Your task to perform on an android device: What's the weather today? Image 0: 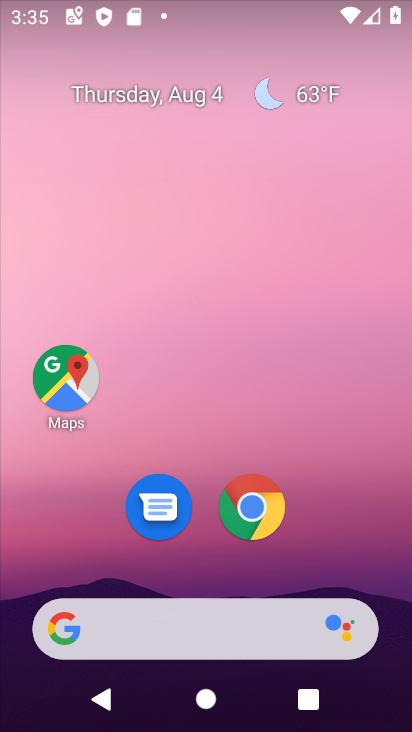
Step 0: click (266, 504)
Your task to perform on an android device: What's the weather today? Image 1: 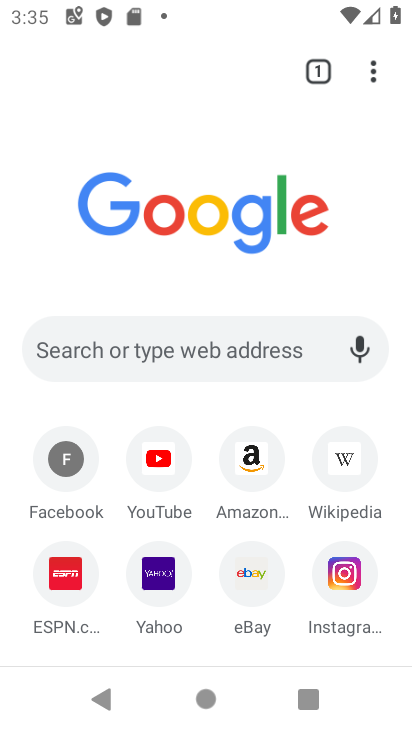
Step 1: click (138, 344)
Your task to perform on an android device: What's the weather today? Image 2: 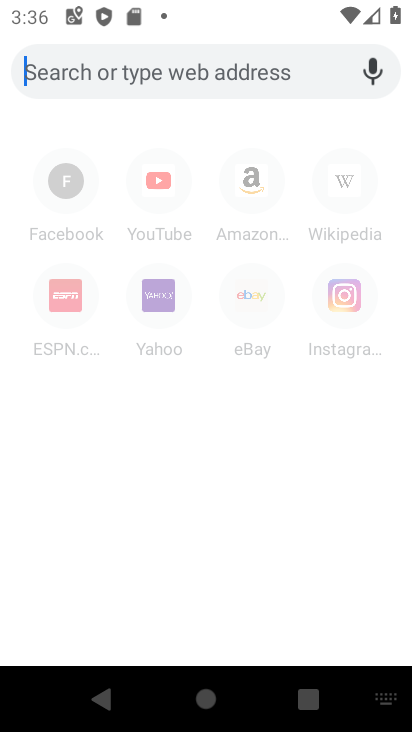
Step 2: type "What's the weather today?"
Your task to perform on an android device: What's the weather today? Image 3: 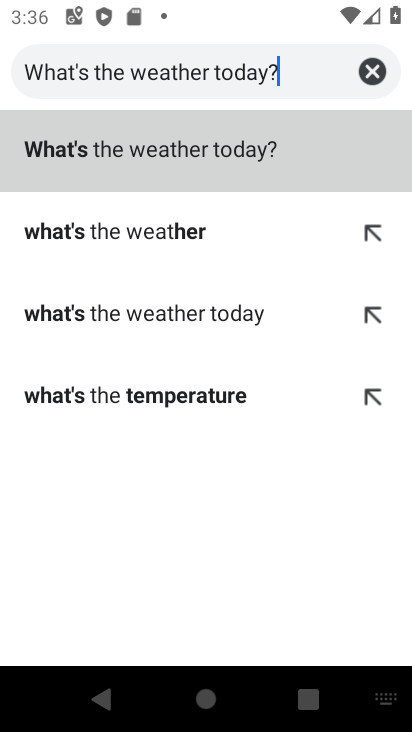
Step 3: type ""
Your task to perform on an android device: What's the weather today? Image 4: 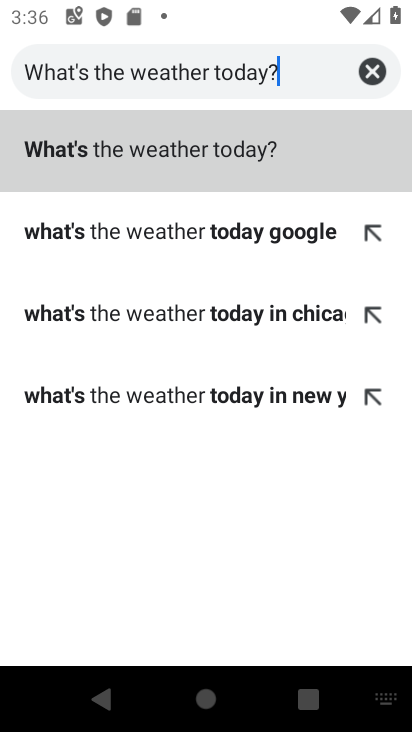
Step 4: click (189, 153)
Your task to perform on an android device: What's the weather today? Image 5: 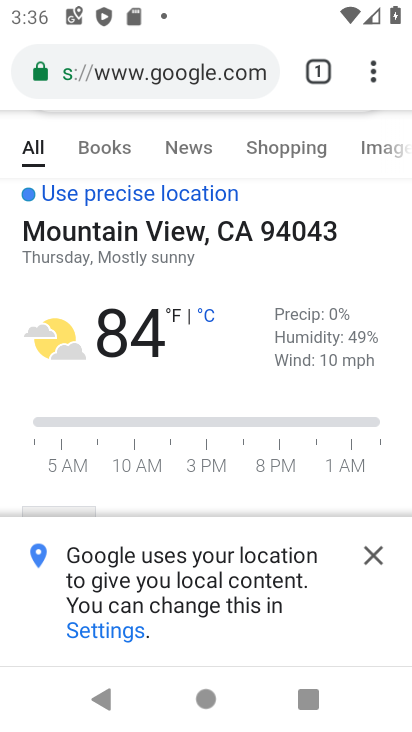
Step 5: task complete